Your task to perform on an android device: Do I have any events today? Image 0: 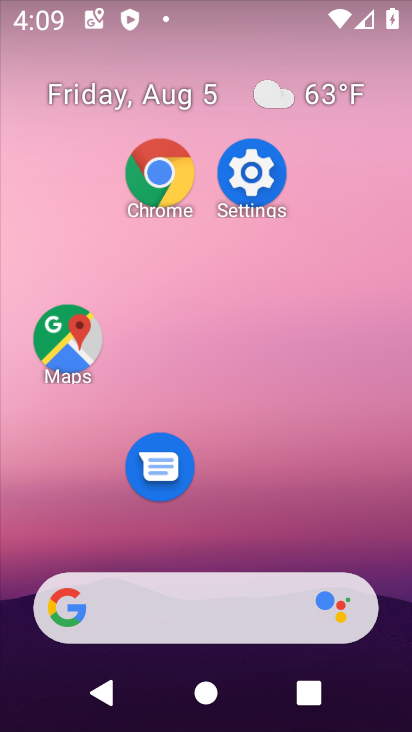
Step 0: drag from (283, 516) to (296, 36)
Your task to perform on an android device: Do I have any events today? Image 1: 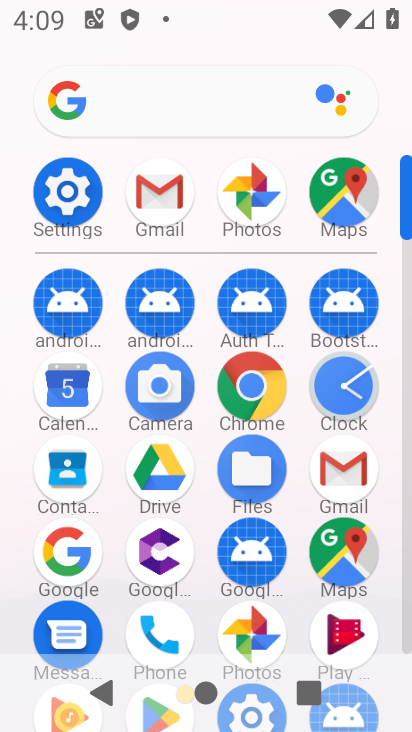
Step 1: click (75, 371)
Your task to perform on an android device: Do I have any events today? Image 2: 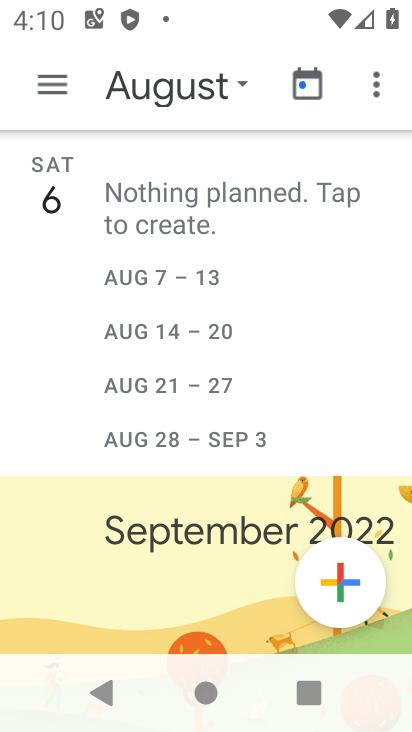
Step 2: click (195, 96)
Your task to perform on an android device: Do I have any events today? Image 3: 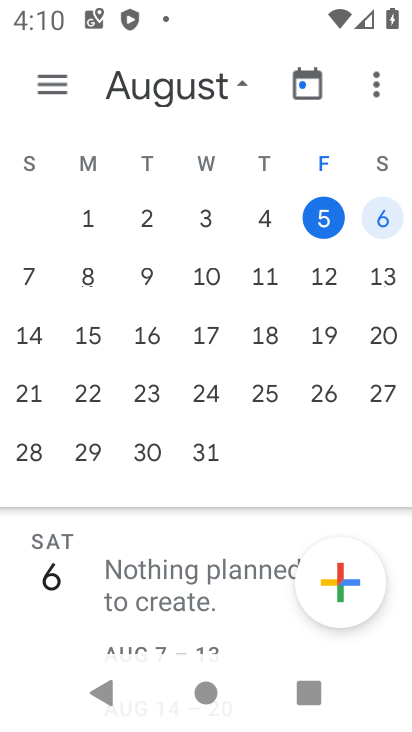
Step 3: click (323, 227)
Your task to perform on an android device: Do I have any events today? Image 4: 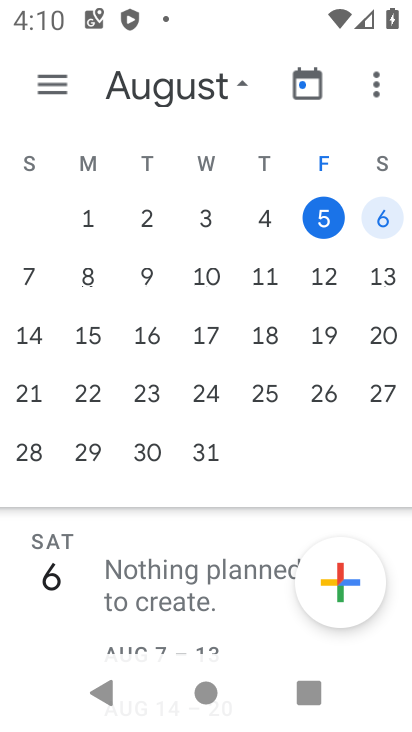
Step 4: click (323, 218)
Your task to perform on an android device: Do I have any events today? Image 5: 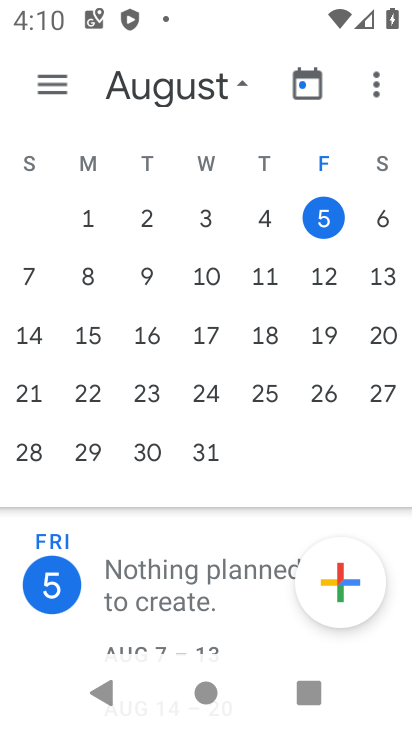
Step 5: task complete